Your task to perform on an android device: allow cookies in the chrome app Image 0: 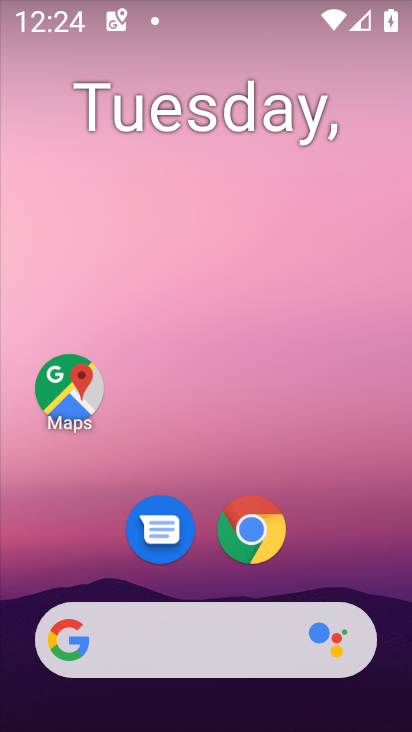
Step 0: click (247, 536)
Your task to perform on an android device: allow cookies in the chrome app Image 1: 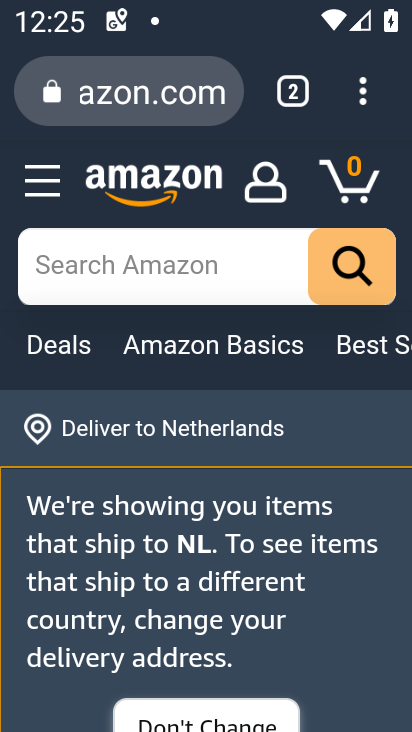
Step 1: drag from (362, 86) to (108, 551)
Your task to perform on an android device: allow cookies in the chrome app Image 2: 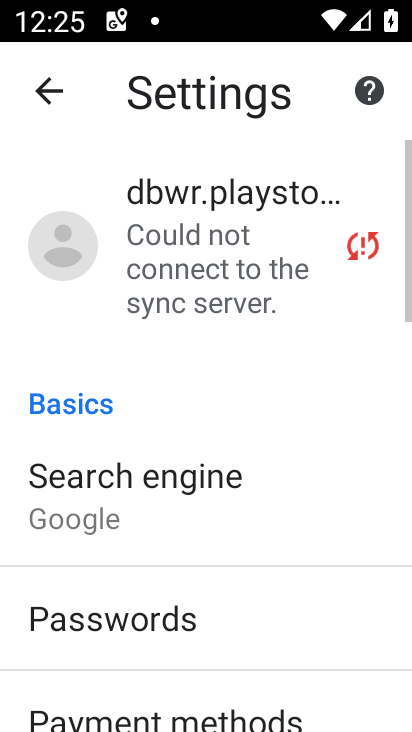
Step 2: drag from (190, 672) to (258, 25)
Your task to perform on an android device: allow cookies in the chrome app Image 3: 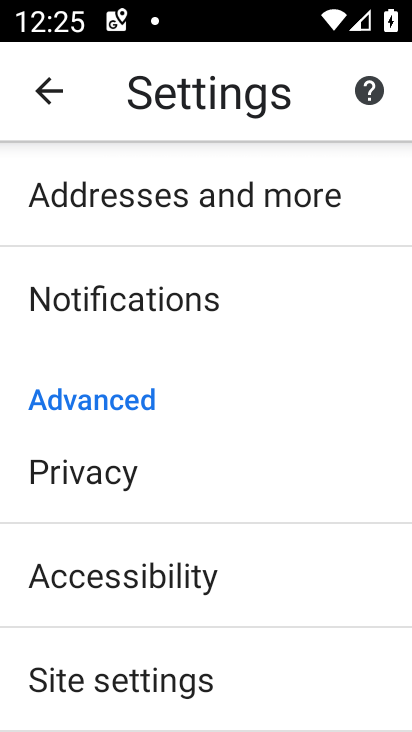
Step 3: drag from (127, 636) to (229, 223)
Your task to perform on an android device: allow cookies in the chrome app Image 4: 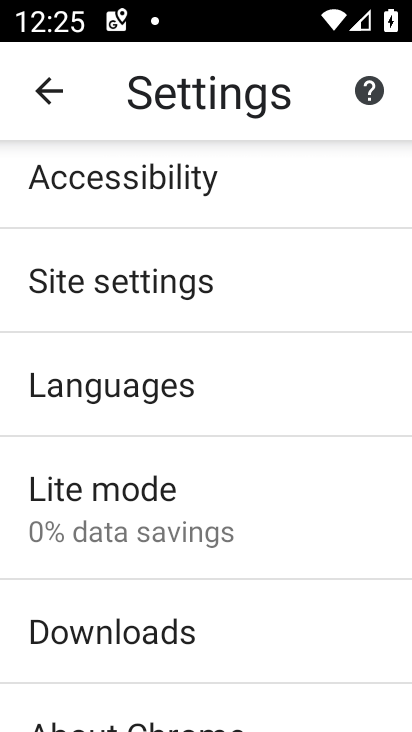
Step 4: click (102, 285)
Your task to perform on an android device: allow cookies in the chrome app Image 5: 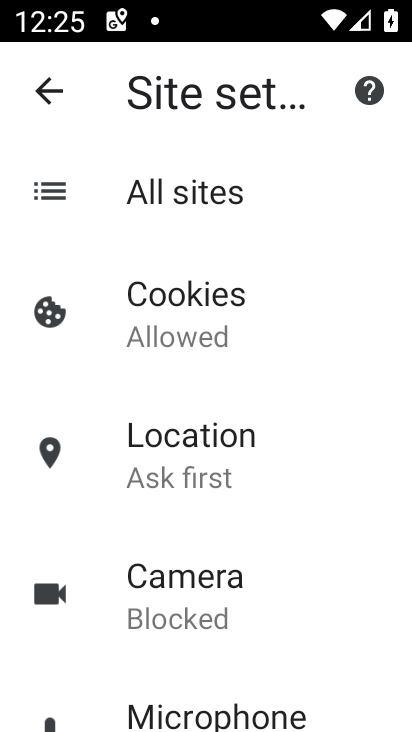
Step 5: click (208, 310)
Your task to perform on an android device: allow cookies in the chrome app Image 6: 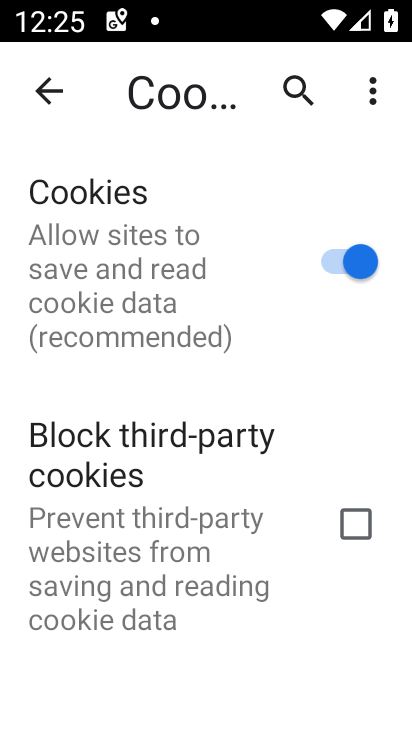
Step 6: task complete